Your task to perform on an android device: turn off wifi Image 0: 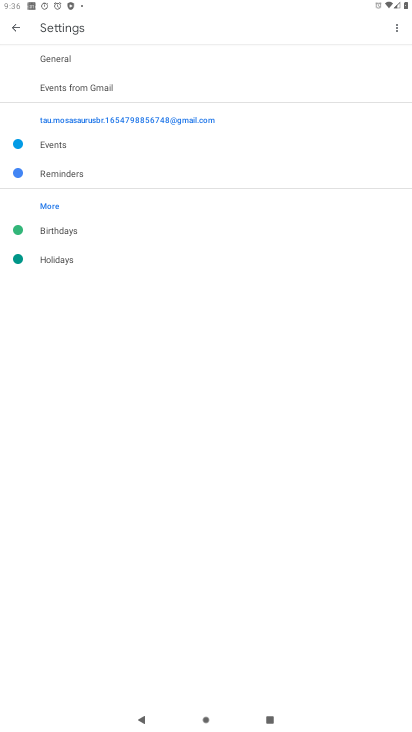
Step 0: press home button
Your task to perform on an android device: turn off wifi Image 1: 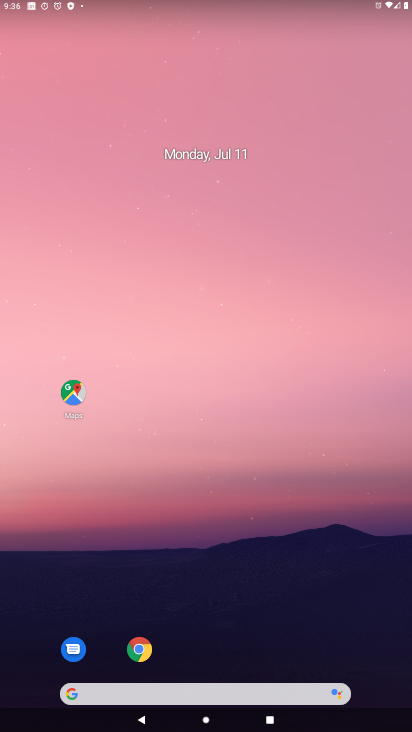
Step 1: drag from (199, 550) to (267, 135)
Your task to perform on an android device: turn off wifi Image 2: 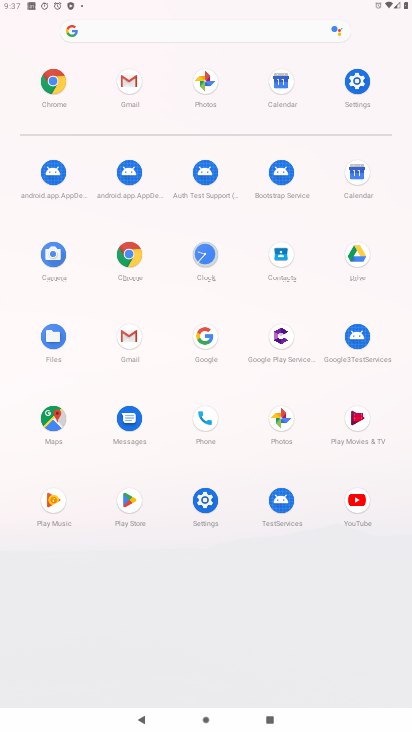
Step 2: click (354, 81)
Your task to perform on an android device: turn off wifi Image 3: 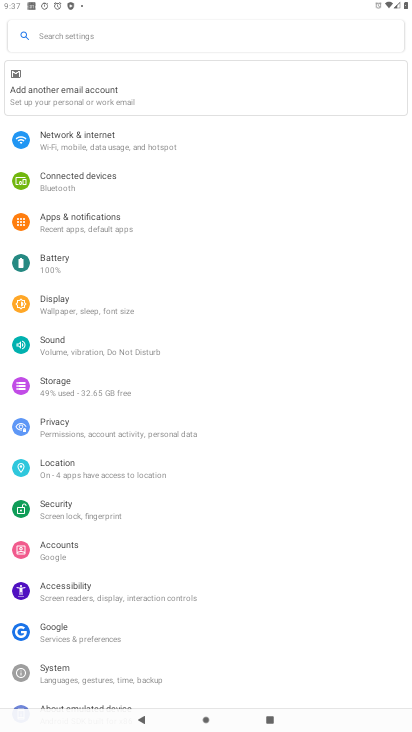
Step 3: click (139, 149)
Your task to perform on an android device: turn off wifi Image 4: 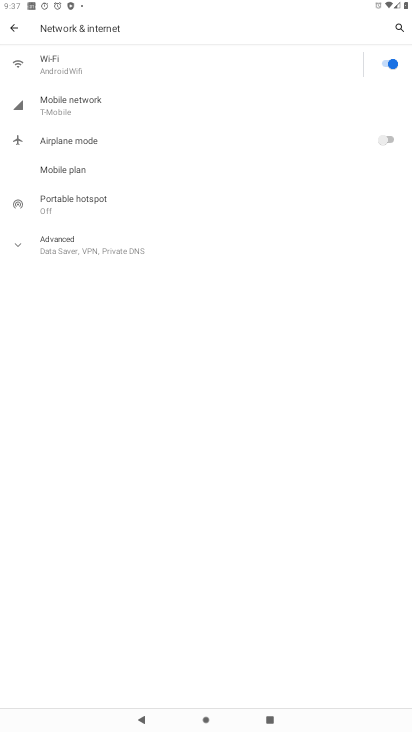
Step 4: click (392, 62)
Your task to perform on an android device: turn off wifi Image 5: 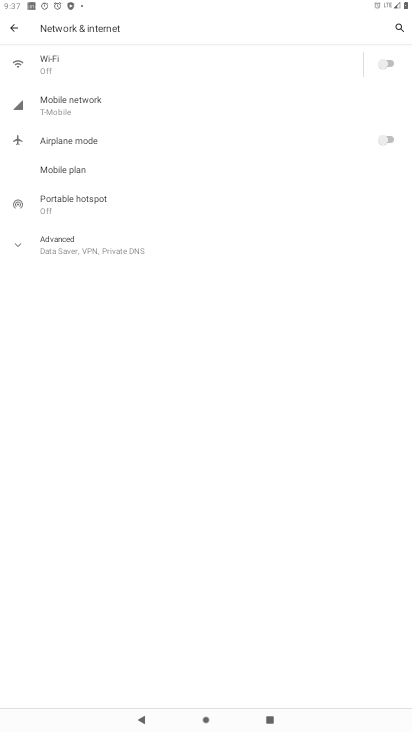
Step 5: task complete